Your task to perform on an android device: Go to sound settings Image 0: 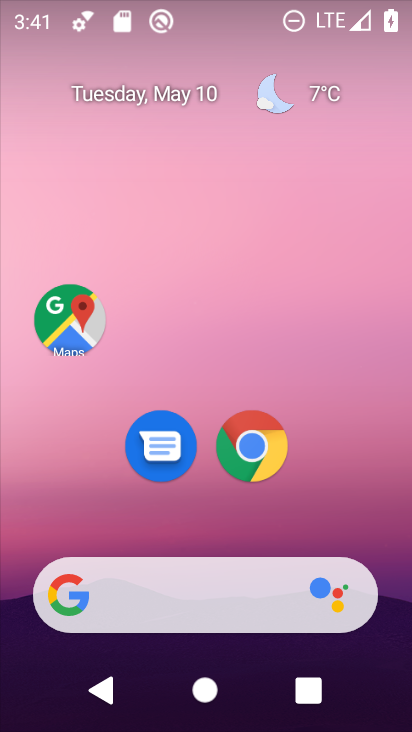
Step 0: drag from (229, 530) to (225, 134)
Your task to perform on an android device: Go to sound settings Image 1: 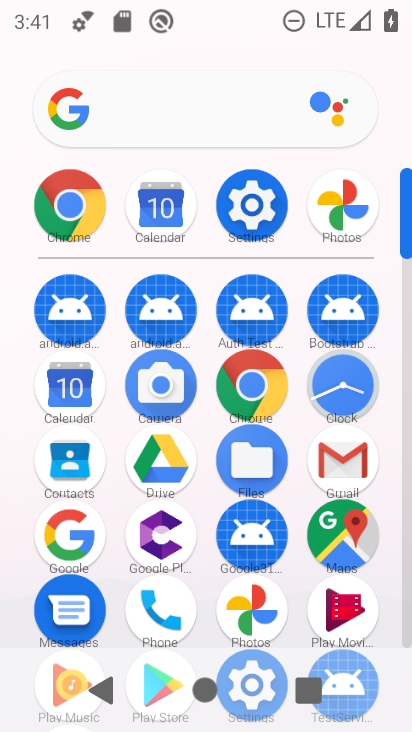
Step 1: click (264, 207)
Your task to perform on an android device: Go to sound settings Image 2: 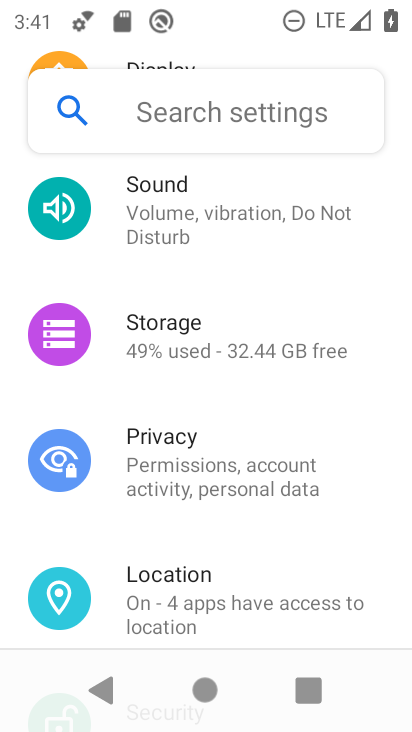
Step 2: click (207, 234)
Your task to perform on an android device: Go to sound settings Image 3: 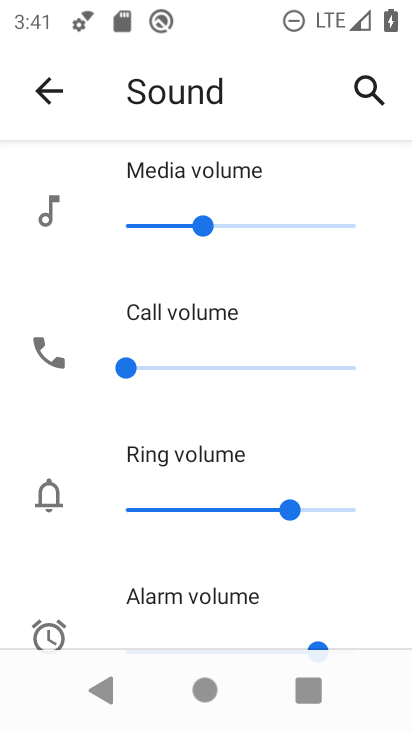
Step 3: task complete